Your task to perform on an android device: turn on the 12-hour format for clock Image 0: 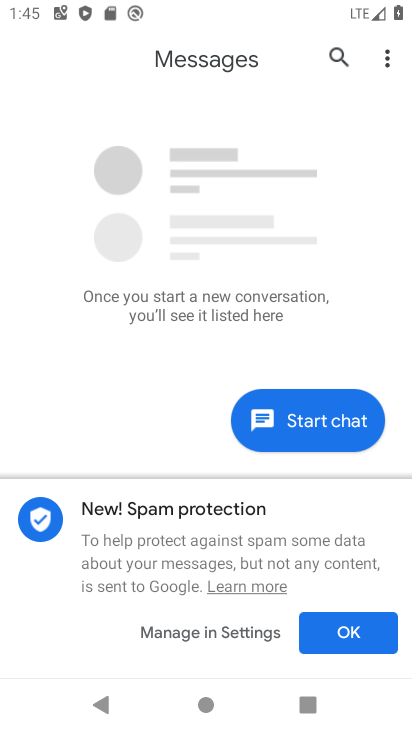
Step 0: press home button
Your task to perform on an android device: turn on the 12-hour format for clock Image 1: 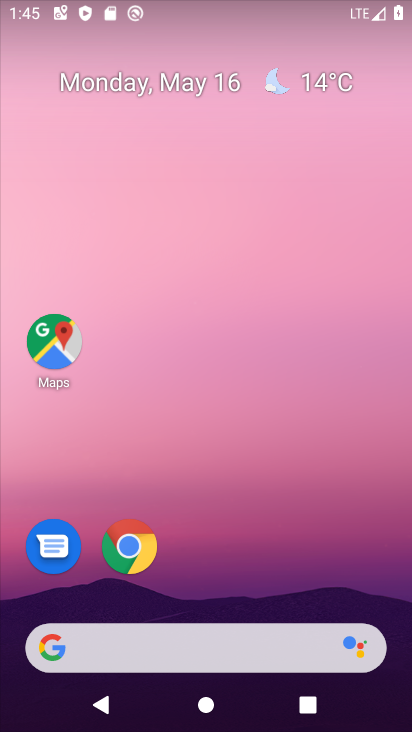
Step 1: drag from (270, 663) to (237, 164)
Your task to perform on an android device: turn on the 12-hour format for clock Image 2: 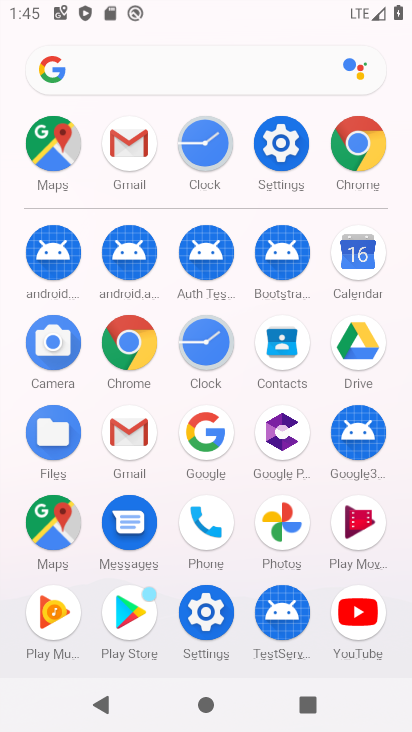
Step 2: click (204, 353)
Your task to perform on an android device: turn on the 12-hour format for clock Image 3: 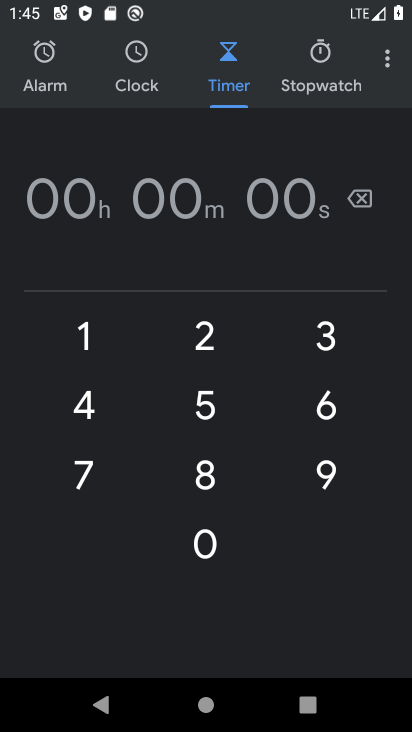
Step 3: click (381, 66)
Your task to perform on an android device: turn on the 12-hour format for clock Image 4: 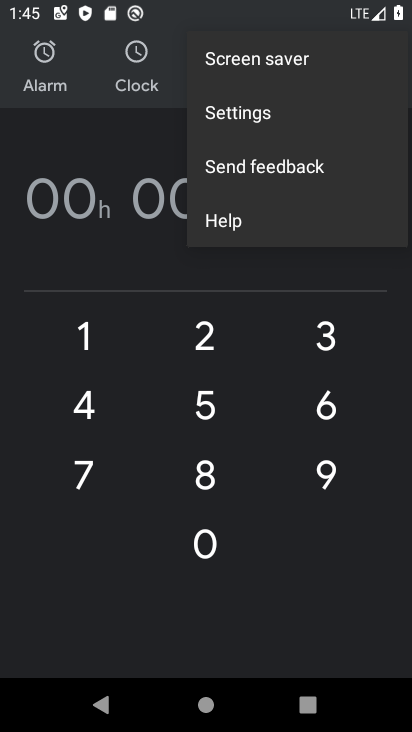
Step 4: click (250, 113)
Your task to perform on an android device: turn on the 12-hour format for clock Image 5: 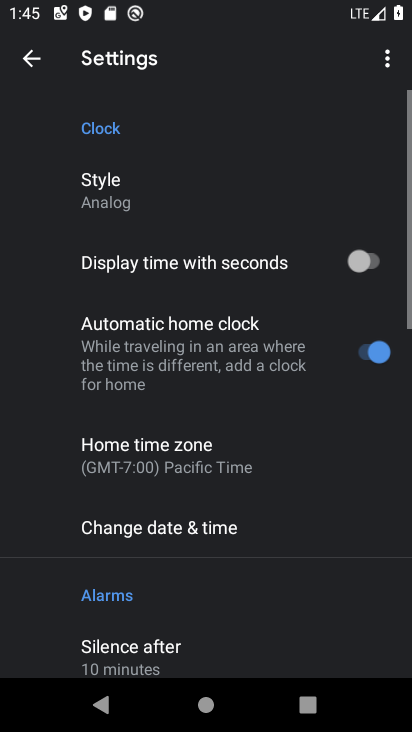
Step 5: click (235, 514)
Your task to perform on an android device: turn on the 12-hour format for clock Image 6: 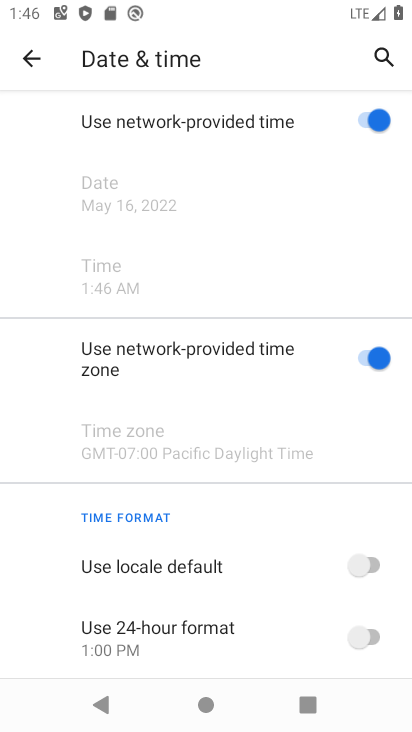
Step 6: click (375, 632)
Your task to perform on an android device: turn on the 12-hour format for clock Image 7: 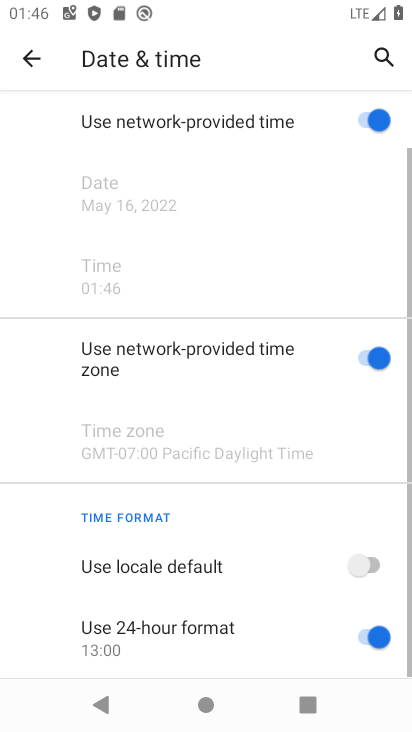
Step 7: click (362, 641)
Your task to perform on an android device: turn on the 12-hour format for clock Image 8: 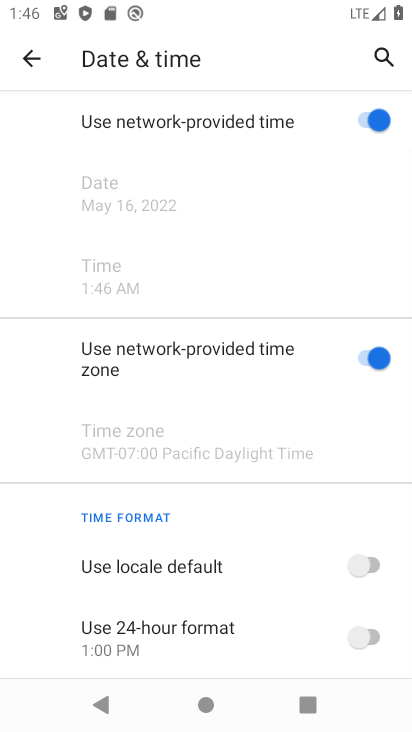
Step 8: task complete